Your task to perform on an android device: toggle location history Image 0: 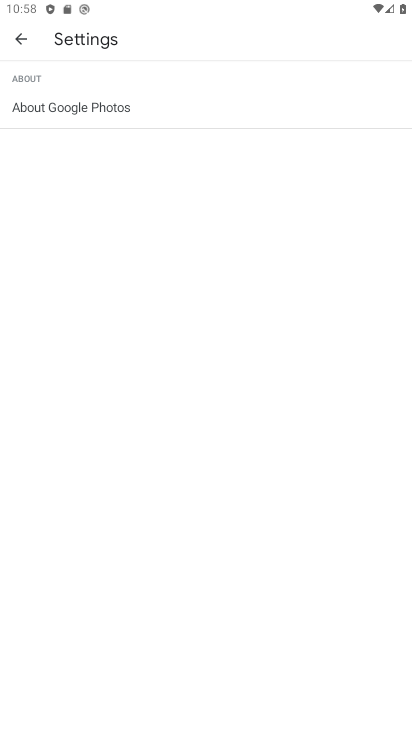
Step 0: press home button
Your task to perform on an android device: toggle location history Image 1: 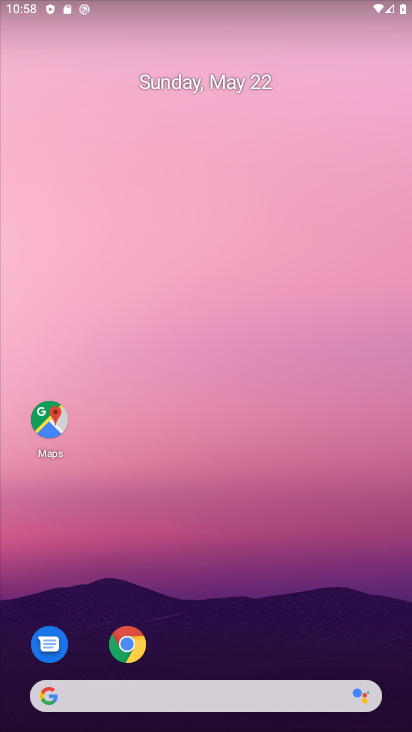
Step 1: drag from (322, 609) to (278, 110)
Your task to perform on an android device: toggle location history Image 2: 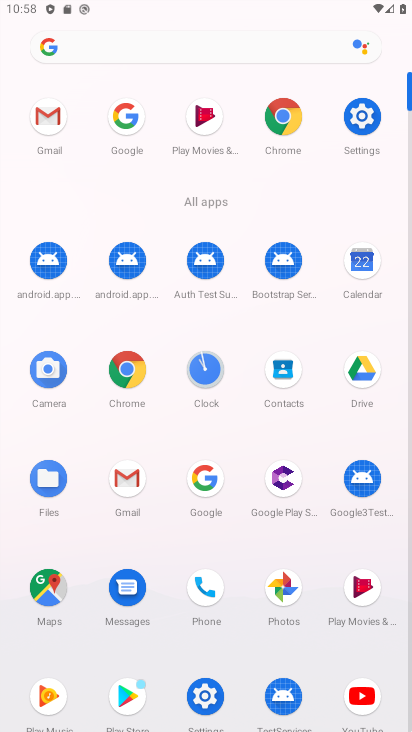
Step 2: click (372, 118)
Your task to perform on an android device: toggle location history Image 3: 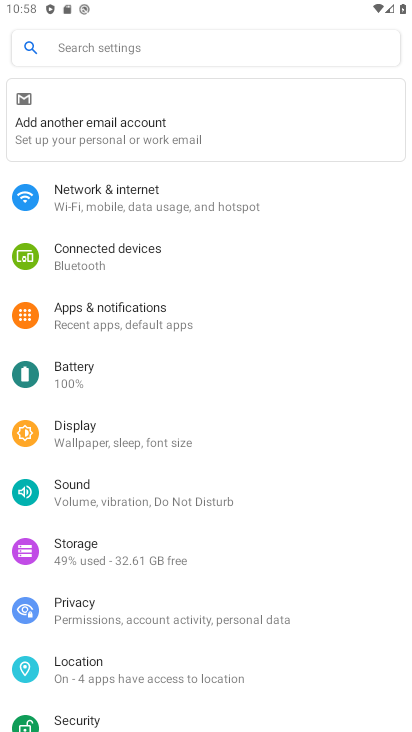
Step 3: click (126, 658)
Your task to perform on an android device: toggle location history Image 4: 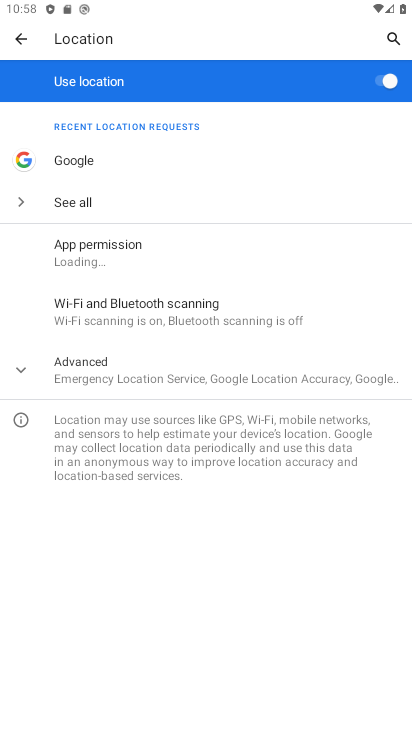
Step 4: click (156, 374)
Your task to perform on an android device: toggle location history Image 5: 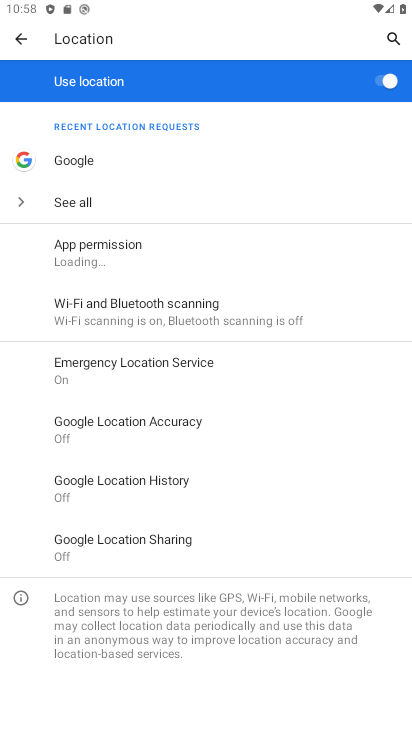
Step 5: click (163, 494)
Your task to perform on an android device: toggle location history Image 6: 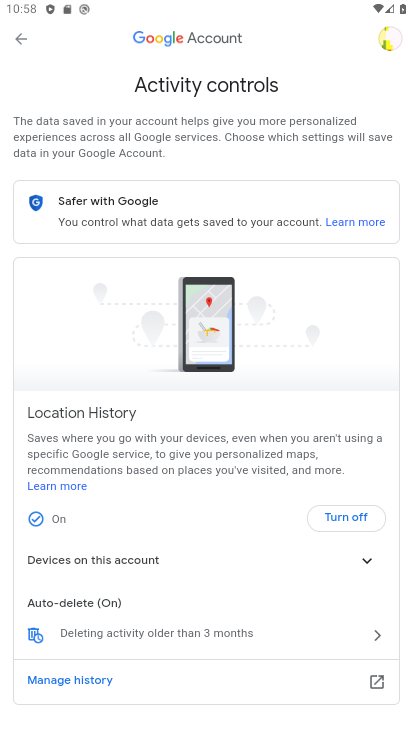
Step 6: click (347, 522)
Your task to perform on an android device: toggle location history Image 7: 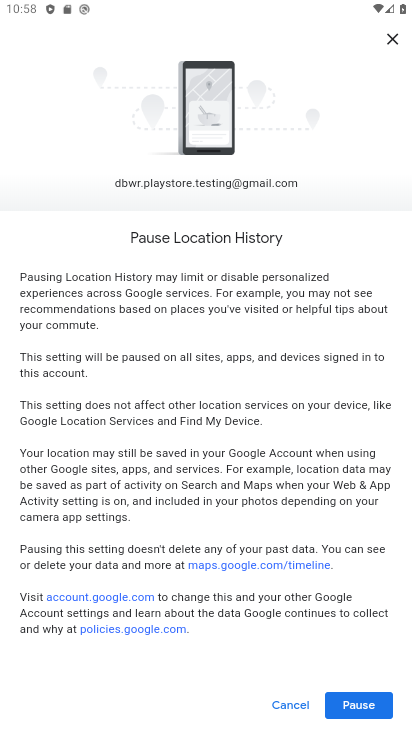
Step 7: task complete